Your task to perform on an android device: Open Google Chrome Image 0: 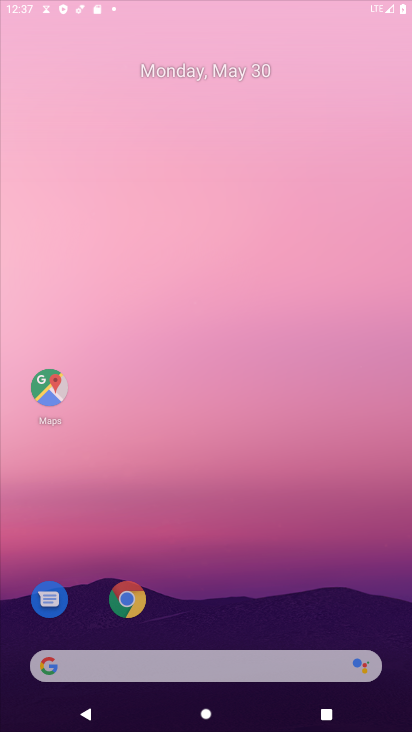
Step 0: click (98, 329)
Your task to perform on an android device: Open Google Chrome Image 1: 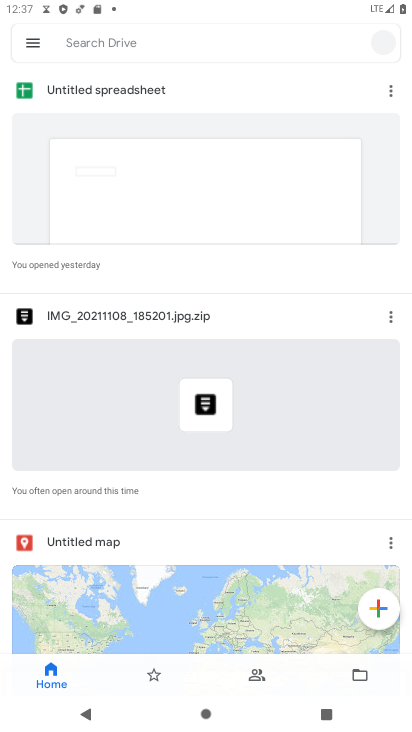
Step 1: click (148, 601)
Your task to perform on an android device: Open Google Chrome Image 2: 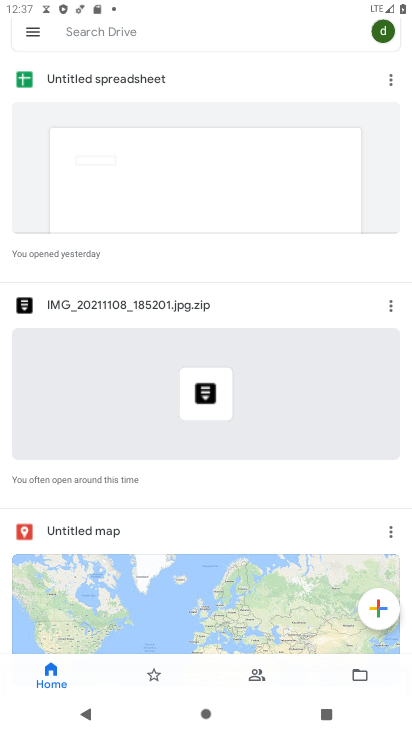
Step 2: press home button
Your task to perform on an android device: Open Google Chrome Image 3: 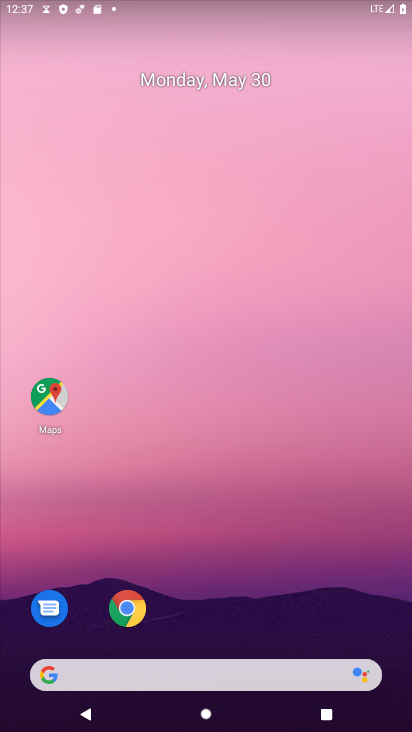
Step 3: click (129, 610)
Your task to perform on an android device: Open Google Chrome Image 4: 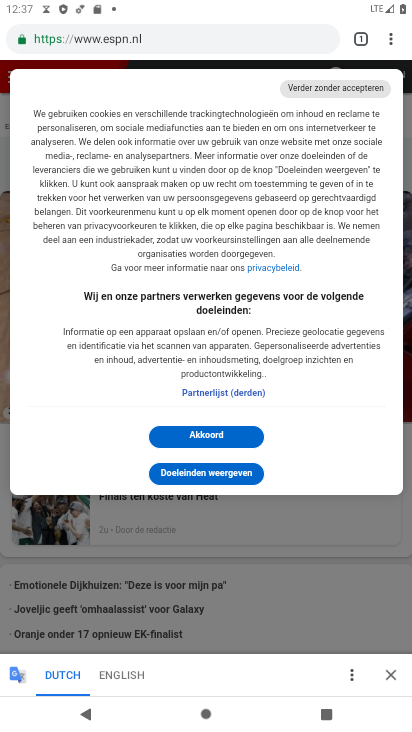
Step 4: task complete